Your task to perform on an android device: open device folders in google photos Image 0: 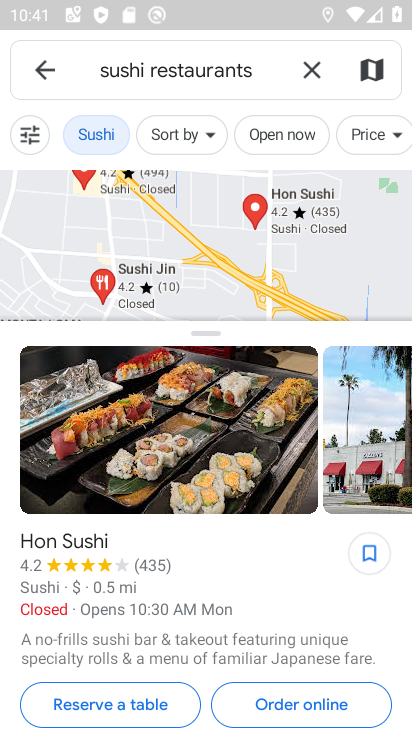
Step 0: press home button
Your task to perform on an android device: open device folders in google photos Image 1: 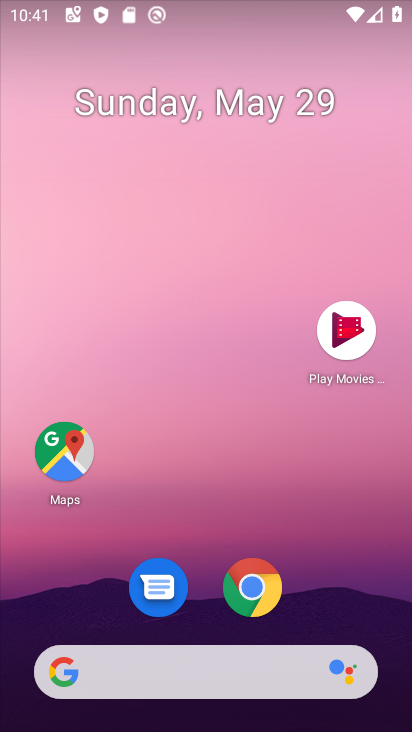
Step 1: drag from (178, 428) to (181, 0)
Your task to perform on an android device: open device folders in google photos Image 2: 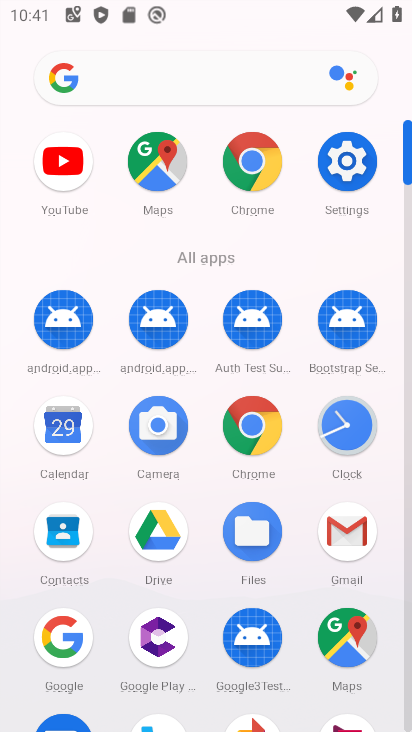
Step 2: click (410, 692)
Your task to perform on an android device: open device folders in google photos Image 3: 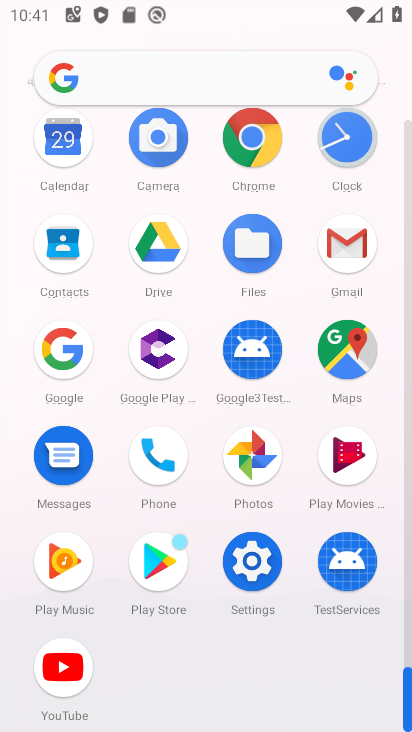
Step 3: click (253, 474)
Your task to perform on an android device: open device folders in google photos Image 4: 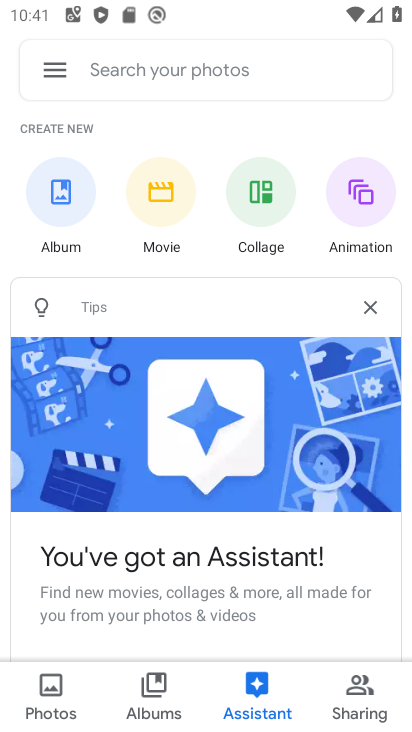
Step 4: click (58, 67)
Your task to perform on an android device: open device folders in google photos Image 5: 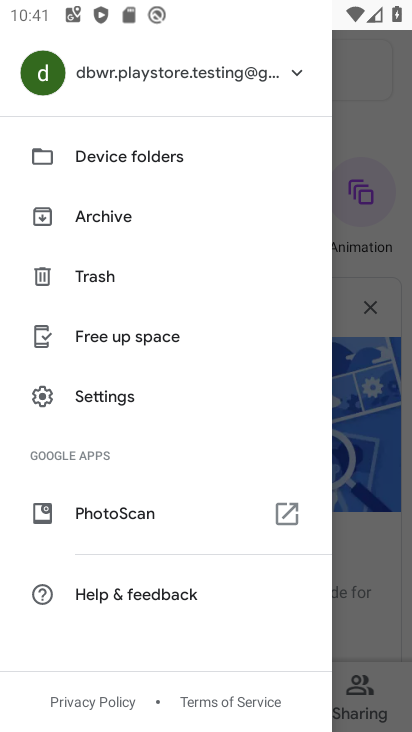
Step 5: click (142, 142)
Your task to perform on an android device: open device folders in google photos Image 6: 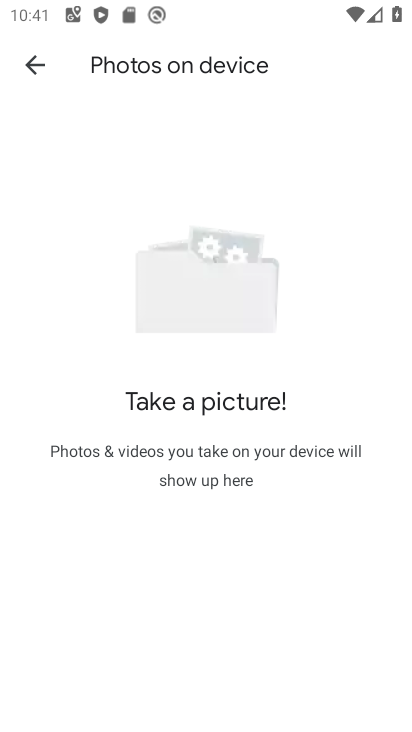
Step 6: task complete